Your task to perform on an android device: allow notifications from all sites in the chrome app Image 0: 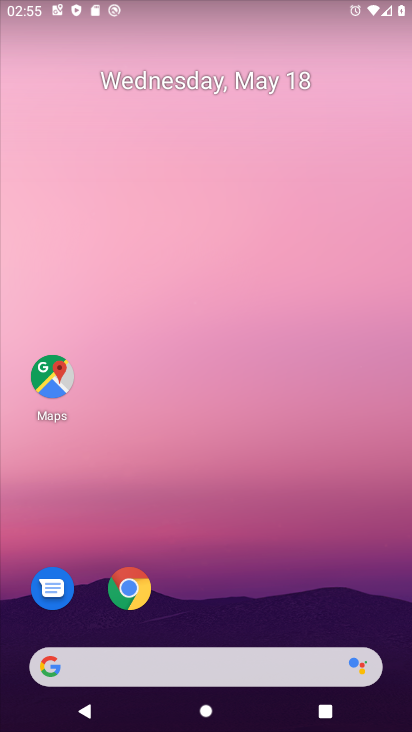
Step 0: press home button
Your task to perform on an android device: allow notifications from all sites in the chrome app Image 1: 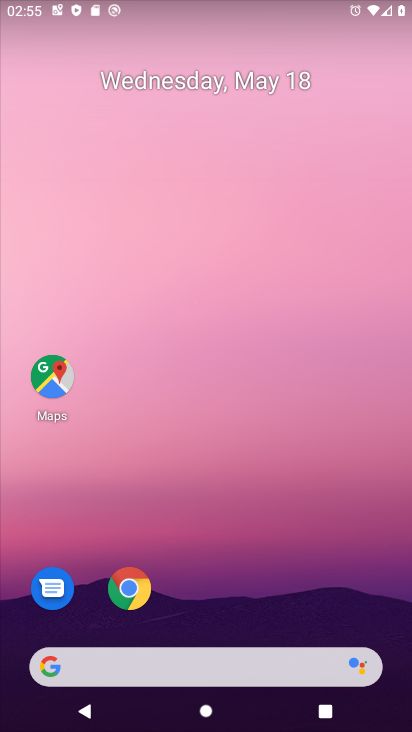
Step 1: press home button
Your task to perform on an android device: allow notifications from all sites in the chrome app Image 2: 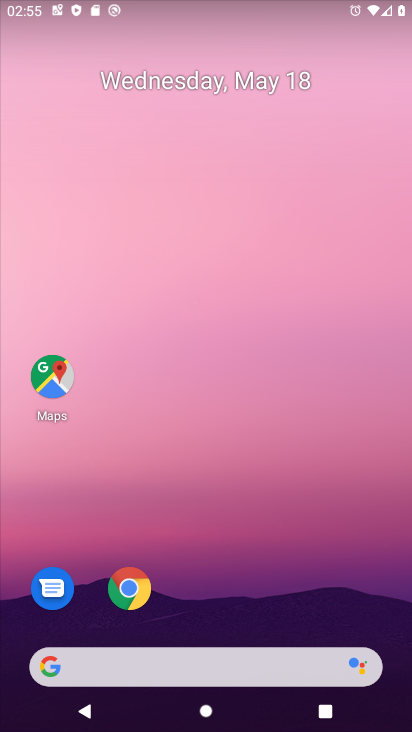
Step 2: drag from (189, 728) to (191, 120)
Your task to perform on an android device: allow notifications from all sites in the chrome app Image 3: 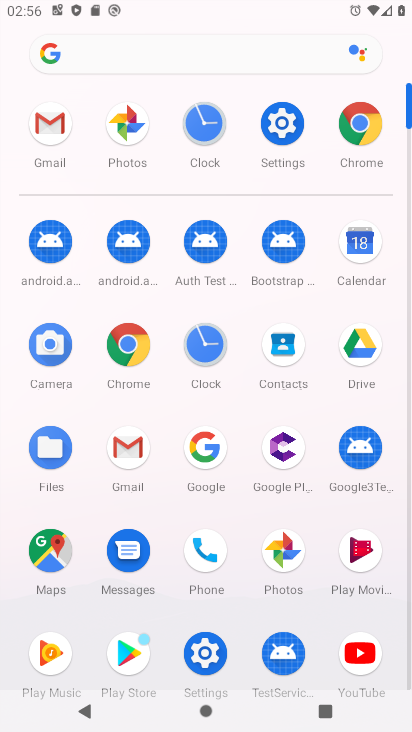
Step 3: click (124, 339)
Your task to perform on an android device: allow notifications from all sites in the chrome app Image 4: 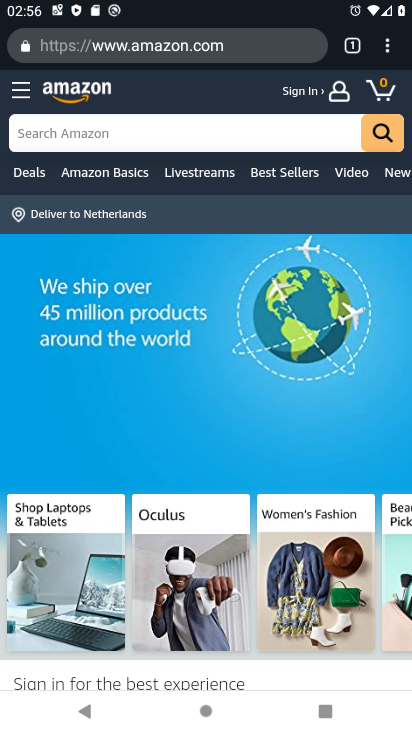
Step 4: click (385, 43)
Your task to perform on an android device: allow notifications from all sites in the chrome app Image 5: 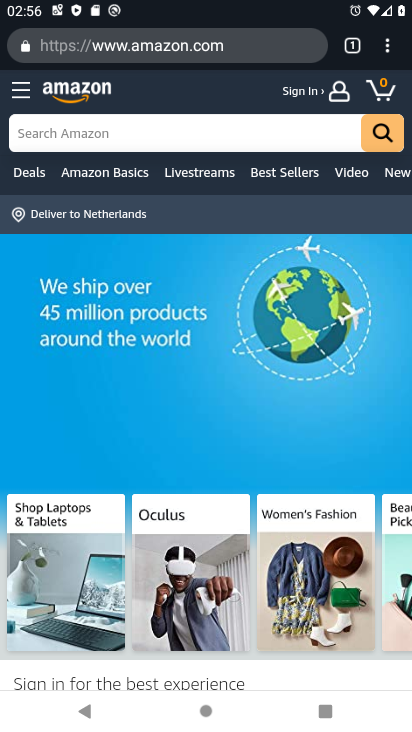
Step 5: click (387, 50)
Your task to perform on an android device: allow notifications from all sites in the chrome app Image 6: 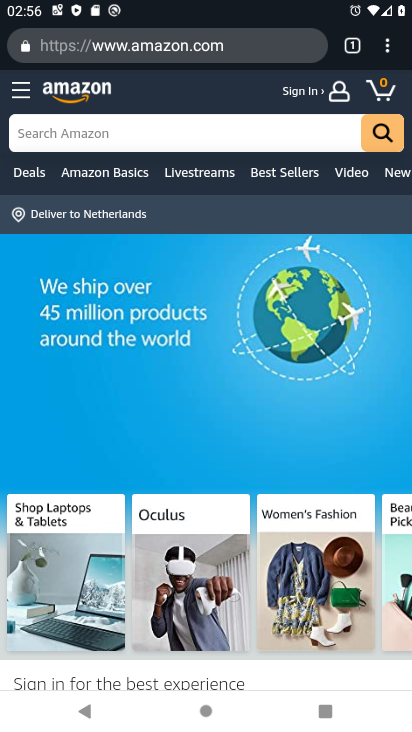
Step 6: click (399, 43)
Your task to perform on an android device: allow notifications from all sites in the chrome app Image 7: 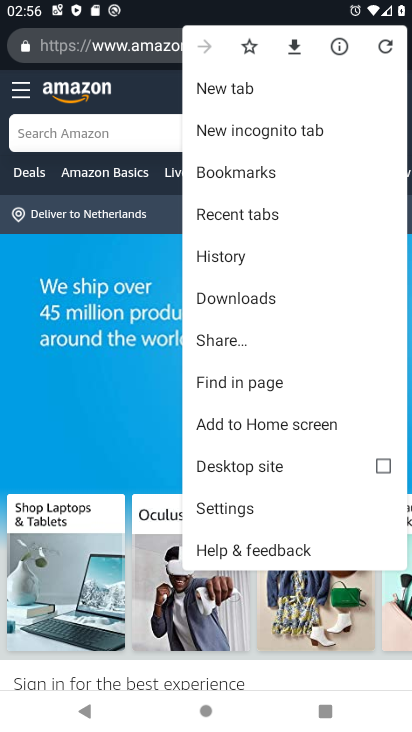
Step 7: click (221, 515)
Your task to perform on an android device: allow notifications from all sites in the chrome app Image 8: 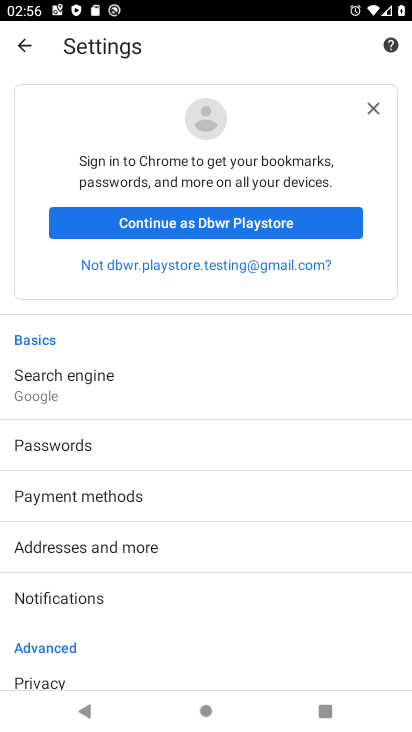
Step 8: drag from (17, 647) to (78, 284)
Your task to perform on an android device: allow notifications from all sites in the chrome app Image 9: 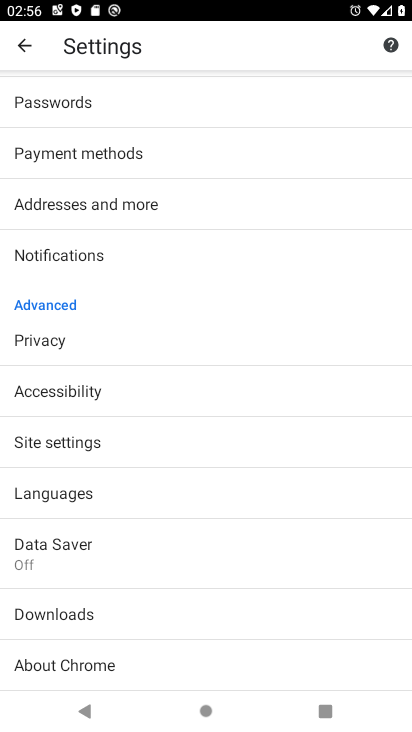
Step 9: click (82, 449)
Your task to perform on an android device: allow notifications from all sites in the chrome app Image 10: 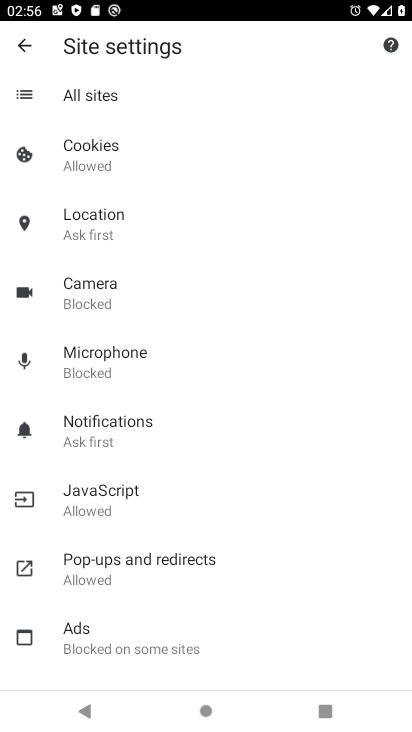
Step 10: click (115, 411)
Your task to perform on an android device: allow notifications from all sites in the chrome app Image 11: 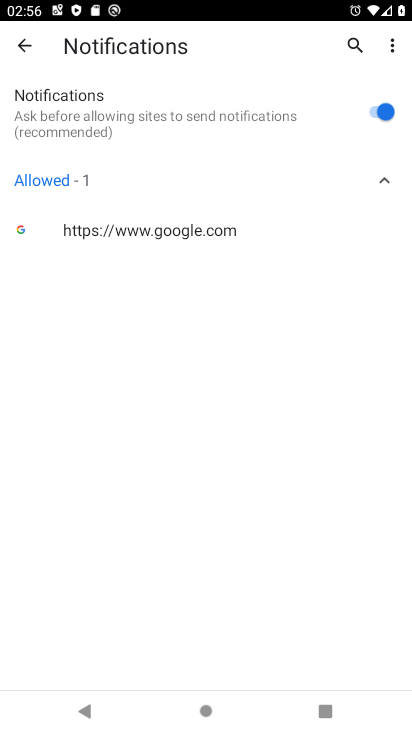
Step 11: click (57, 112)
Your task to perform on an android device: allow notifications from all sites in the chrome app Image 12: 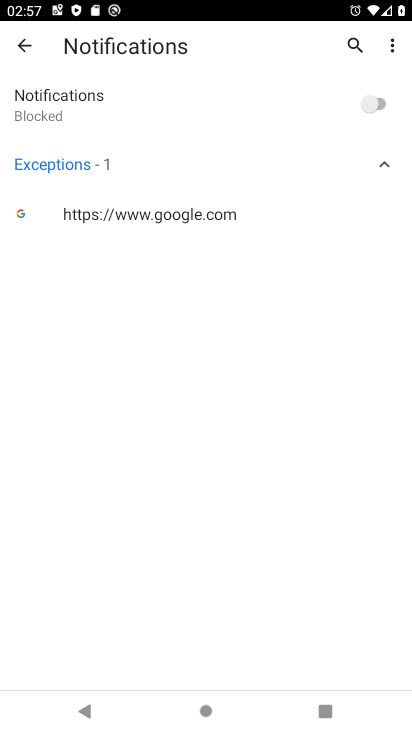
Step 12: click (188, 95)
Your task to perform on an android device: allow notifications from all sites in the chrome app Image 13: 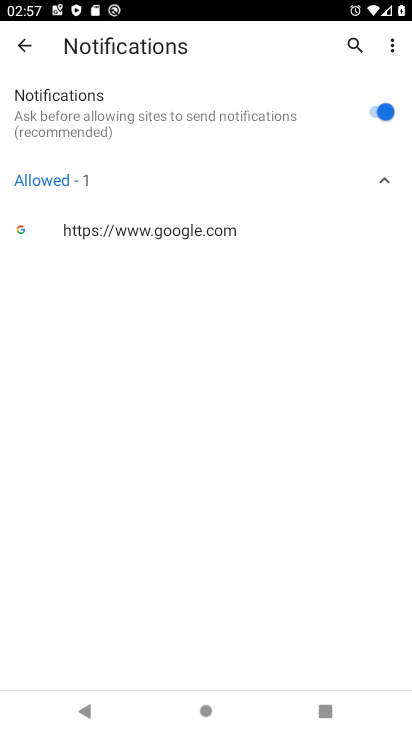
Step 13: task complete